Your task to perform on an android device: What is the recent news? Image 0: 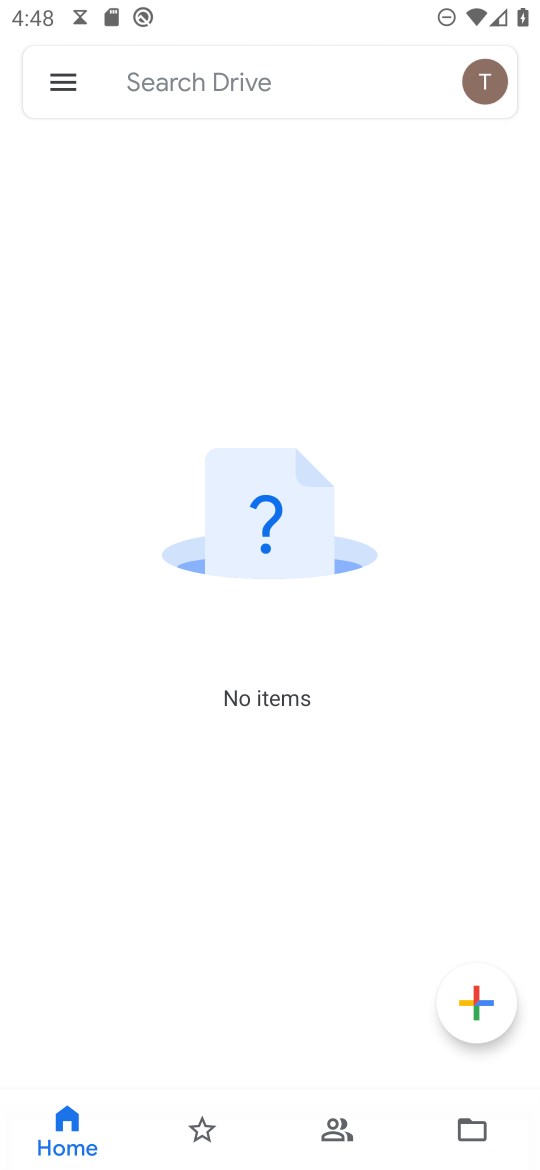
Step 0: press home button
Your task to perform on an android device: What is the recent news? Image 1: 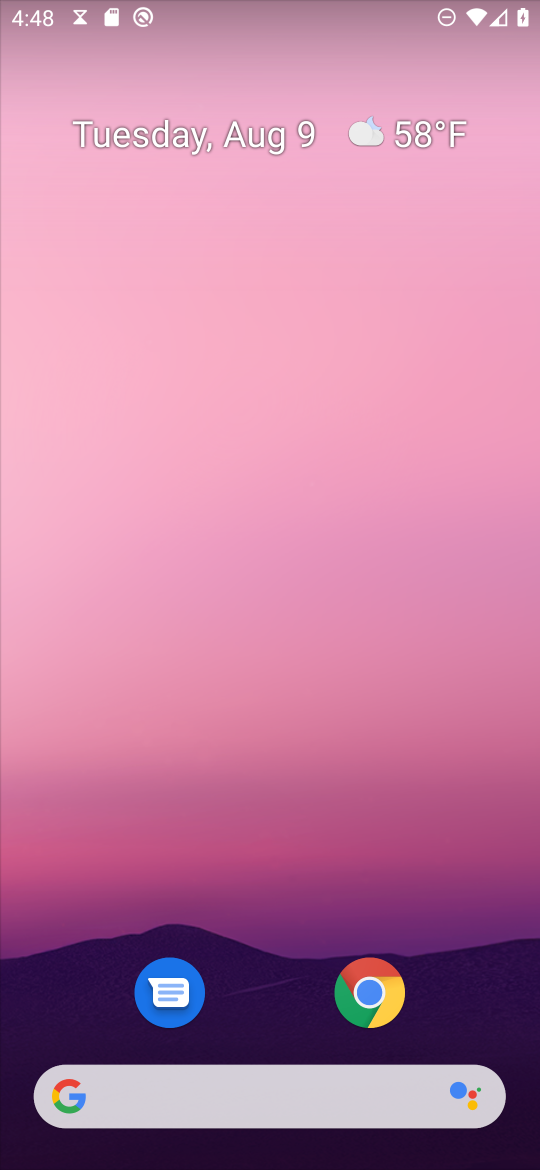
Step 1: drag from (282, 1071) to (128, 31)
Your task to perform on an android device: What is the recent news? Image 2: 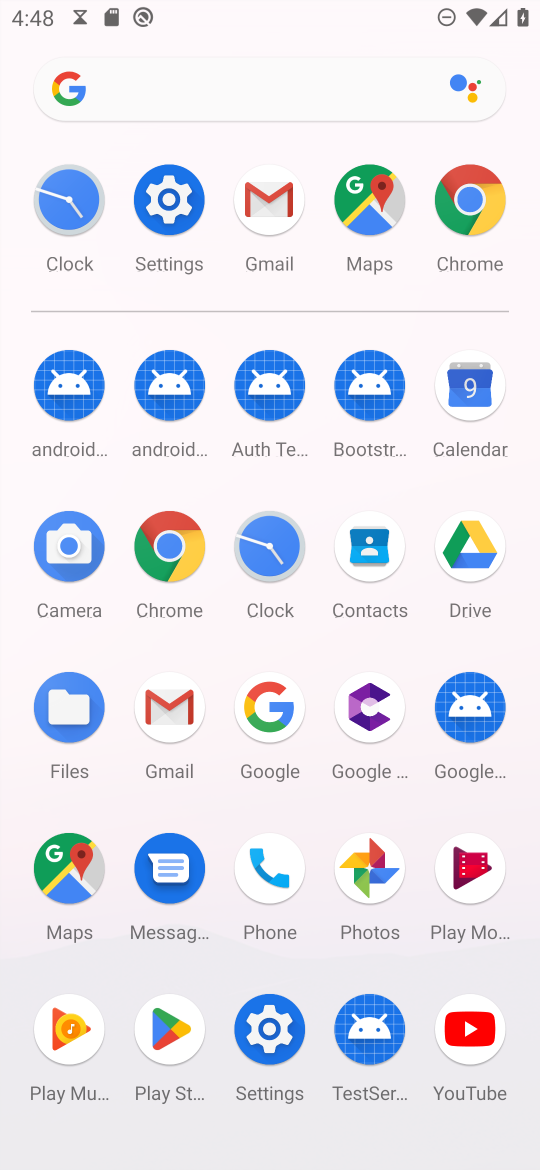
Step 2: click (174, 567)
Your task to perform on an android device: What is the recent news? Image 3: 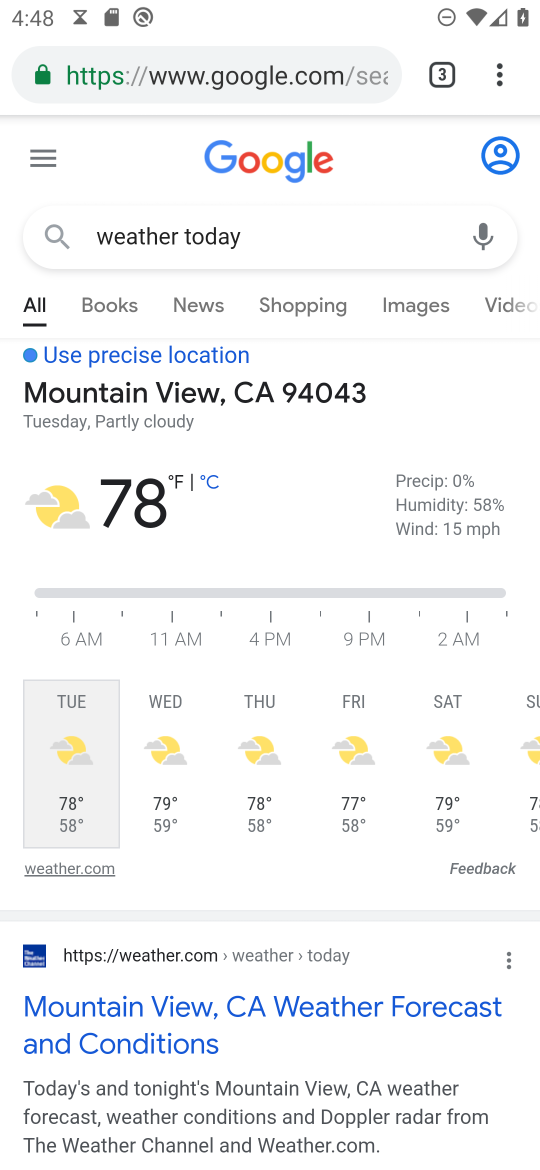
Step 3: click (299, 70)
Your task to perform on an android device: What is the recent news? Image 4: 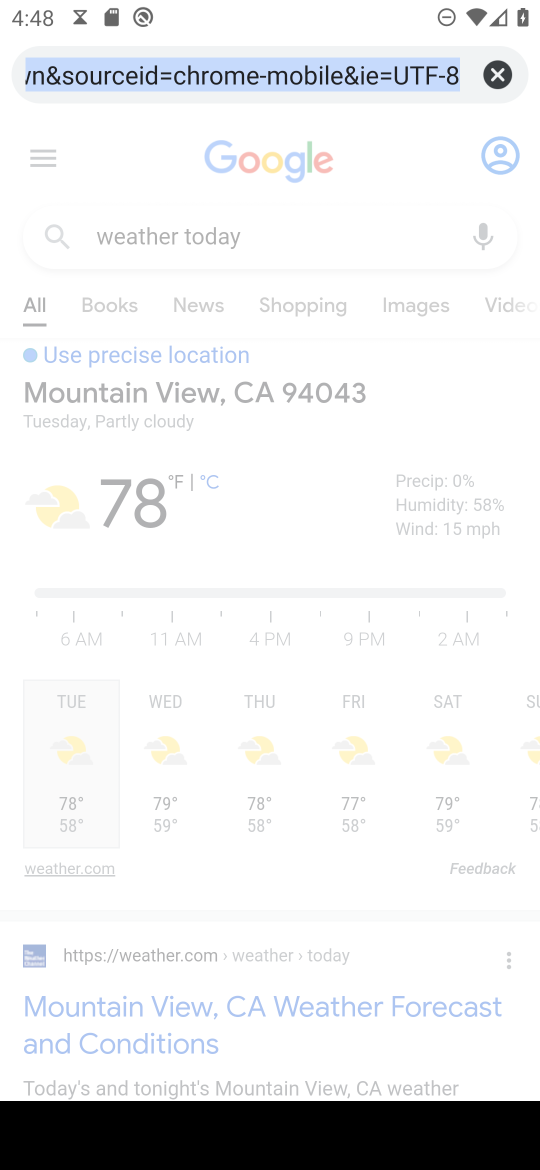
Step 4: type "what is the recent news"
Your task to perform on an android device: What is the recent news? Image 5: 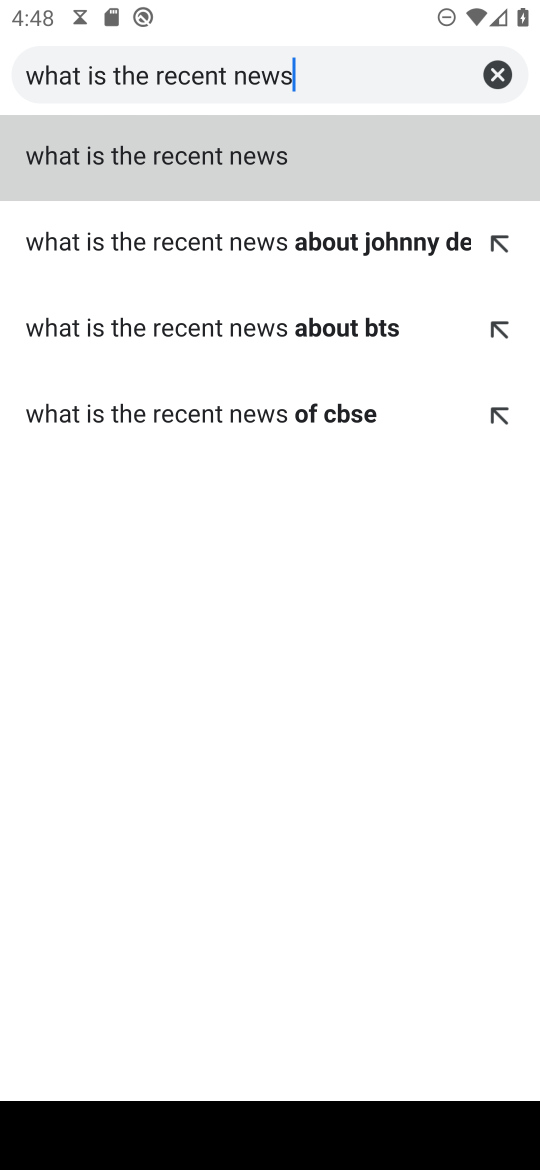
Step 5: click (431, 177)
Your task to perform on an android device: What is the recent news? Image 6: 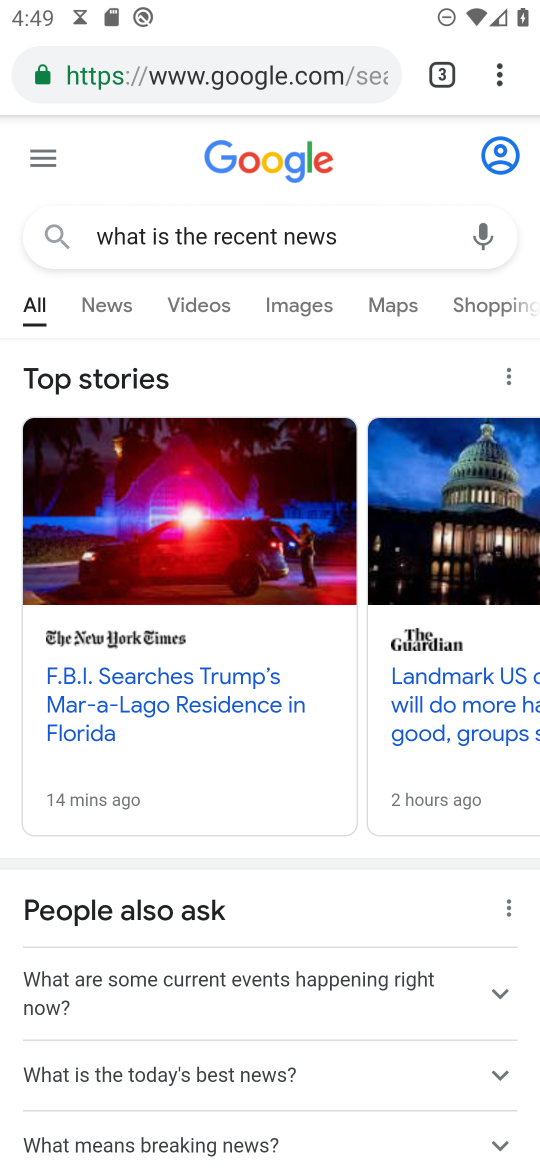
Step 6: task complete